Your task to perform on an android device: Toggle the flashlight Image 0: 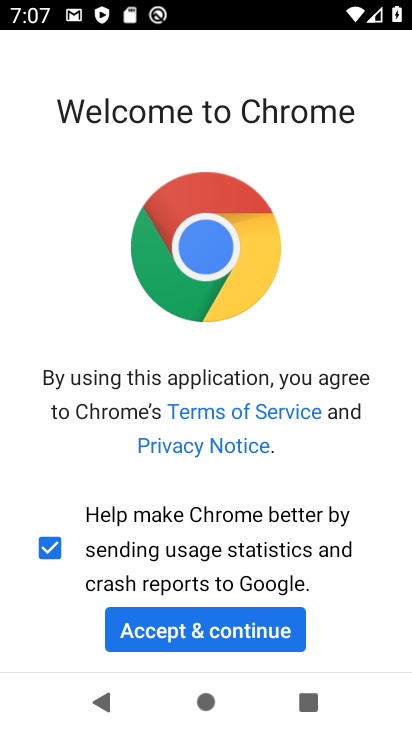
Step 0: press home button
Your task to perform on an android device: Toggle the flashlight Image 1: 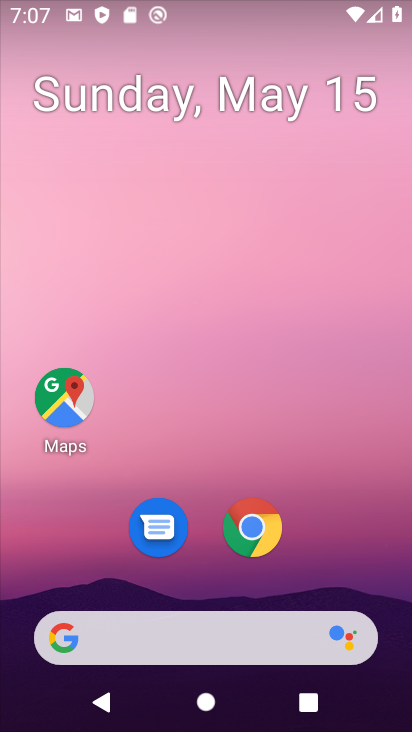
Step 1: drag from (372, 568) to (410, 235)
Your task to perform on an android device: Toggle the flashlight Image 2: 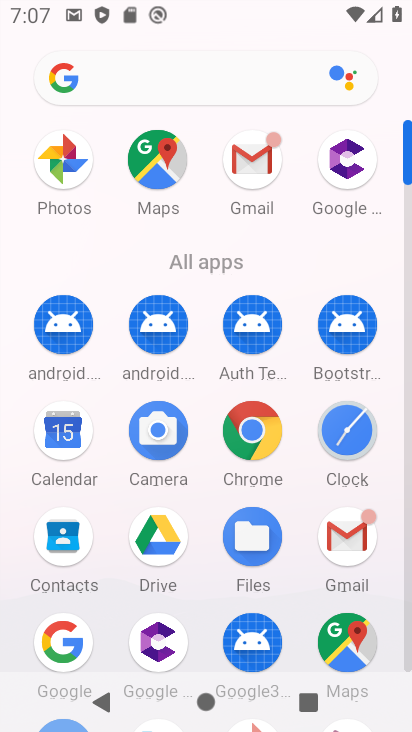
Step 2: drag from (398, 520) to (409, 449)
Your task to perform on an android device: Toggle the flashlight Image 3: 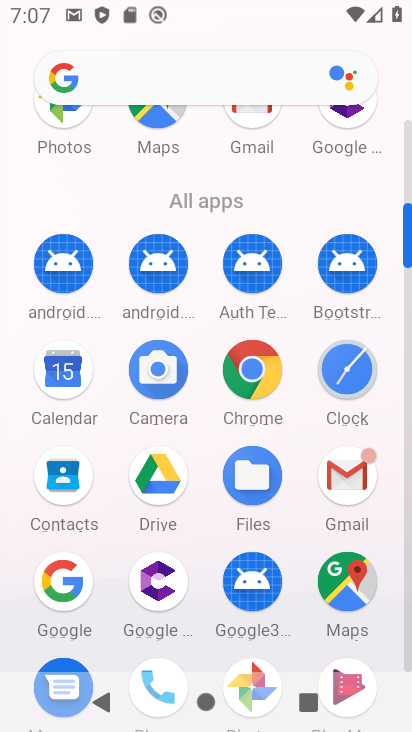
Step 3: drag from (401, 589) to (411, 231)
Your task to perform on an android device: Toggle the flashlight Image 4: 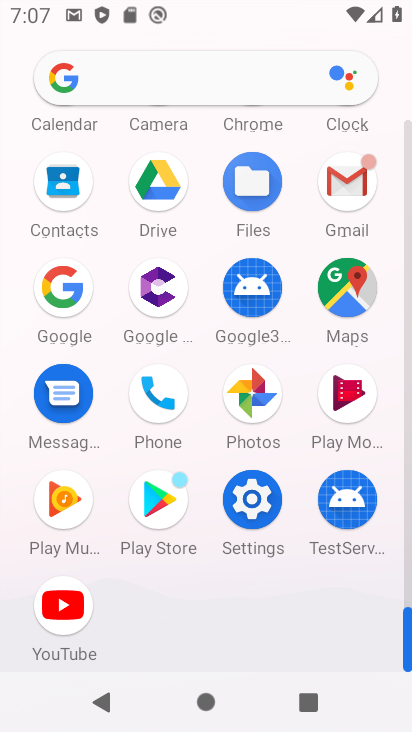
Step 4: click (257, 488)
Your task to perform on an android device: Toggle the flashlight Image 5: 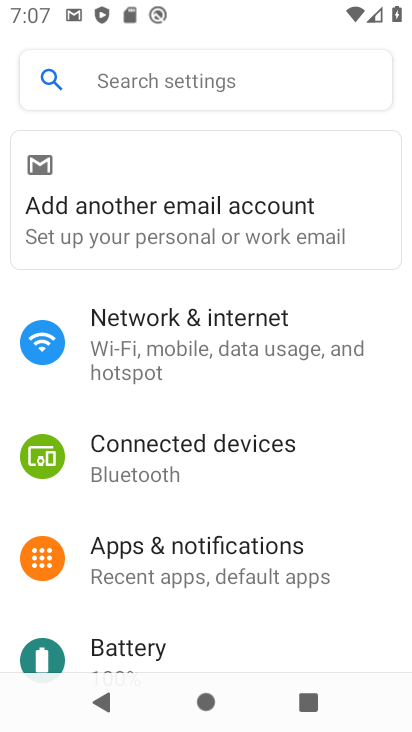
Step 5: task complete